Your task to perform on an android device: Go to battery settings Image 0: 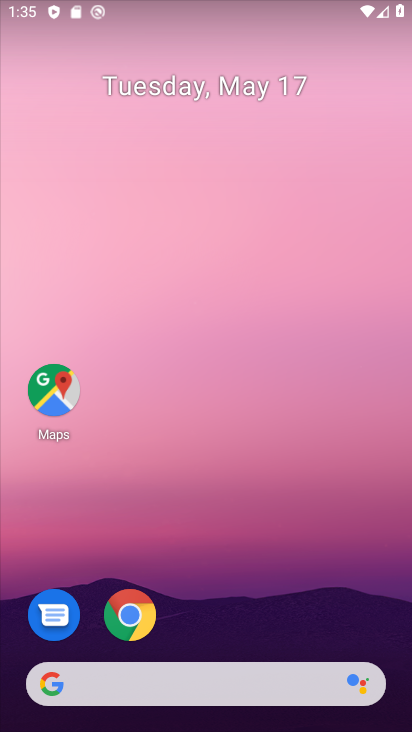
Step 0: drag from (144, 413) to (111, 17)
Your task to perform on an android device: Go to battery settings Image 1: 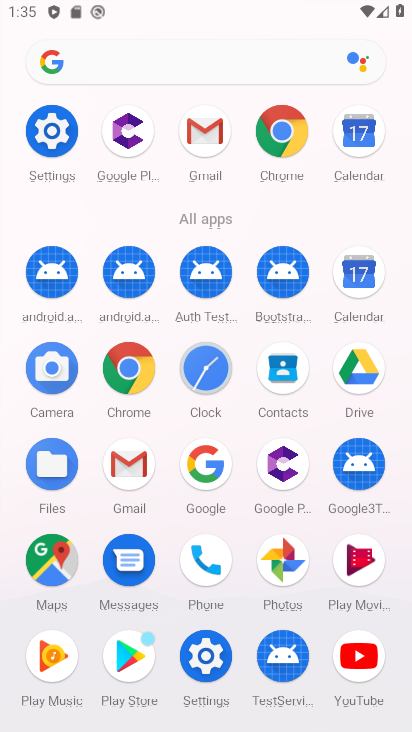
Step 1: click (54, 125)
Your task to perform on an android device: Go to battery settings Image 2: 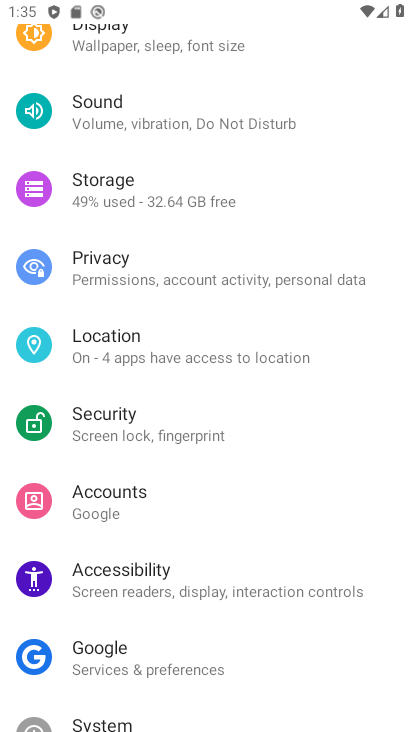
Step 2: drag from (146, 242) to (116, 481)
Your task to perform on an android device: Go to battery settings Image 3: 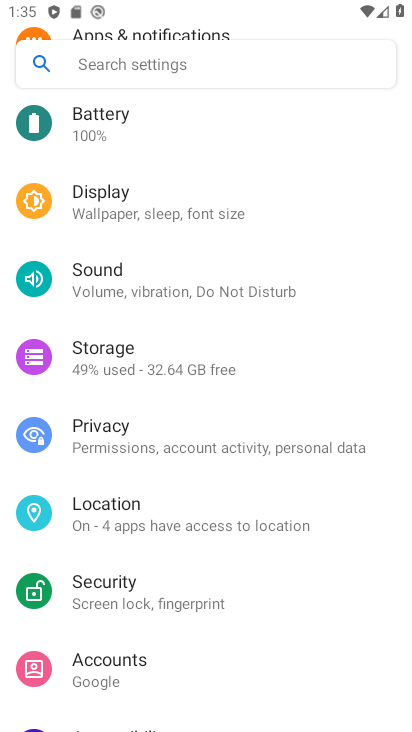
Step 3: click (123, 122)
Your task to perform on an android device: Go to battery settings Image 4: 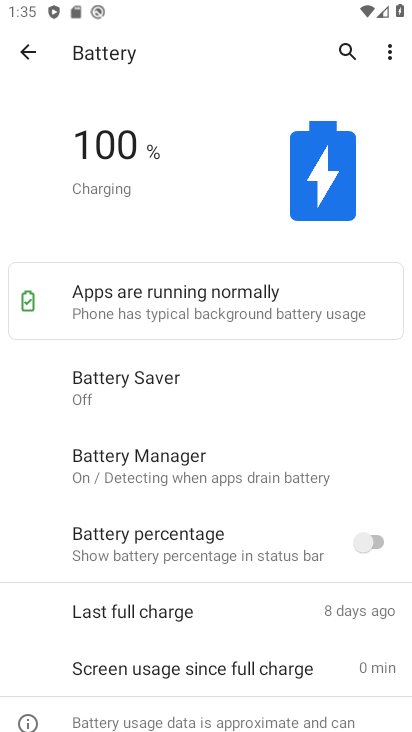
Step 4: task complete